Your task to perform on an android device: Open notification settings Image 0: 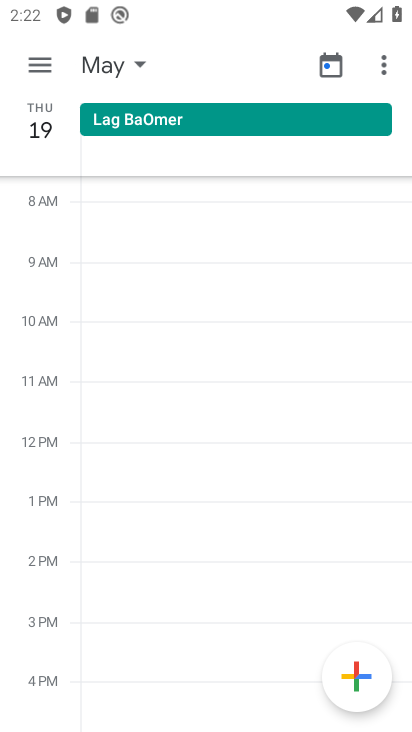
Step 0: press home button
Your task to perform on an android device: Open notification settings Image 1: 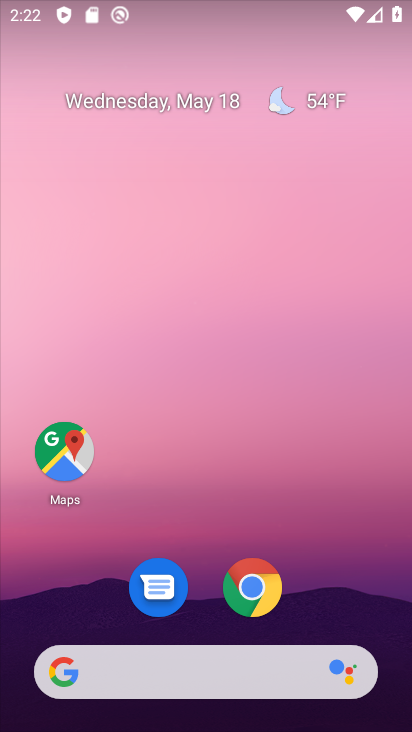
Step 1: drag from (311, 499) to (244, 10)
Your task to perform on an android device: Open notification settings Image 2: 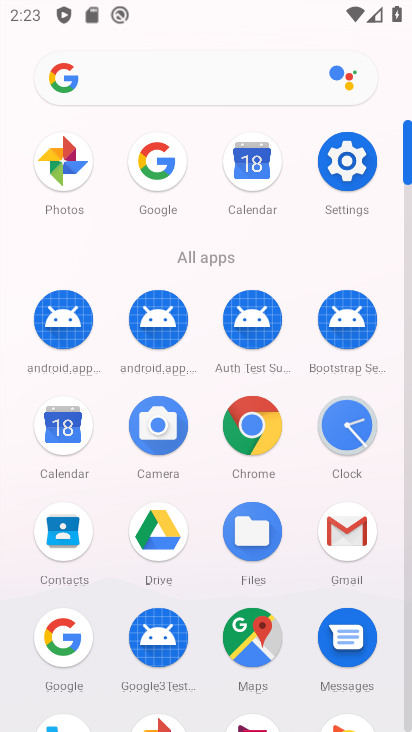
Step 2: click (360, 177)
Your task to perform on an android device: Open notification settings Image 3: 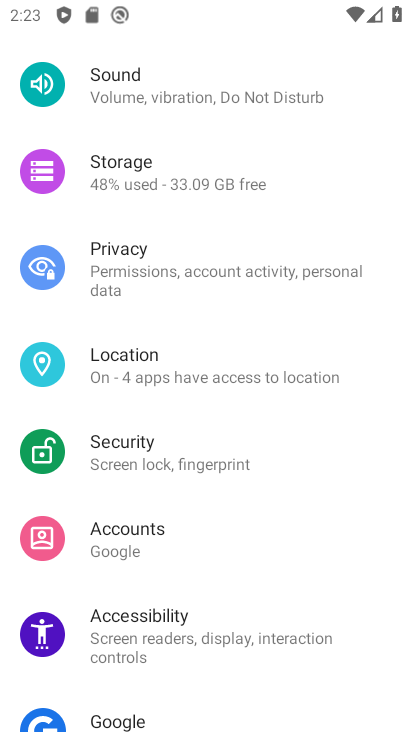
Step 3: drag from (222, 459) to (219, 626)
Your task to perform on an android device: Open notification settings Image 4: 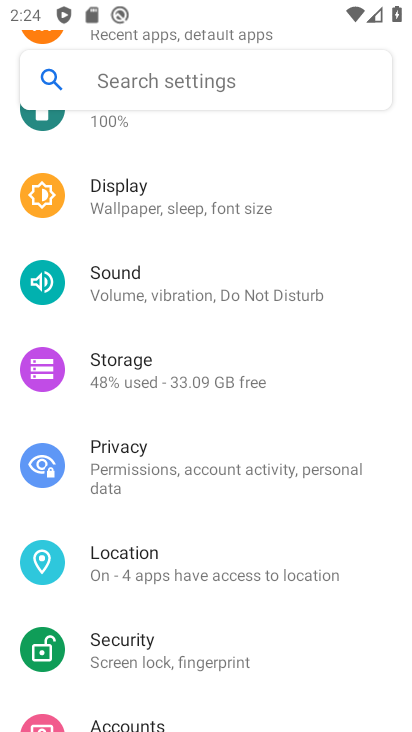
Step 4: drag from (205, 216) to (211, 583)
Your task to perform on an android device: Open notification settings Image 5: 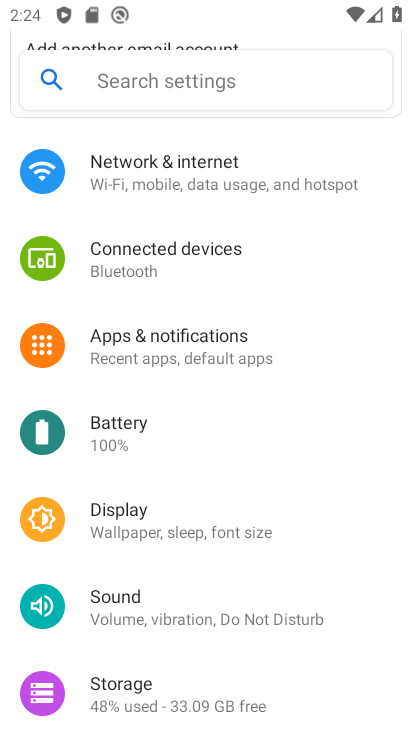
Step 5: click (169, 344)
Your task to perform on an android device: Open notification settings Image 6: 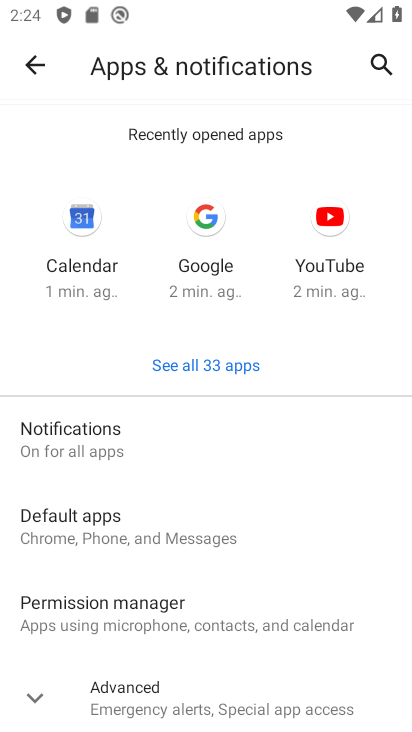
Step 6: click (177, 433)
Your task to perform on an android device: Open notification settings Image 7: 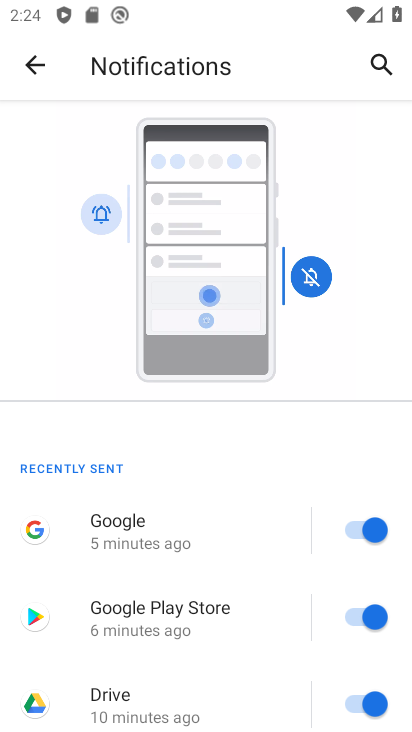
Step 7: task complete